Your task to perform on an android device: Open privacy settings Image 0: 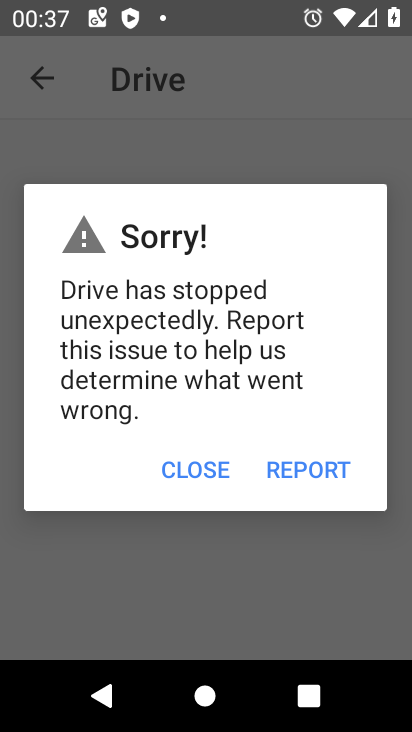
Step 0: press home button
Your task to perform on an android device: Open privacy settings Image 1: 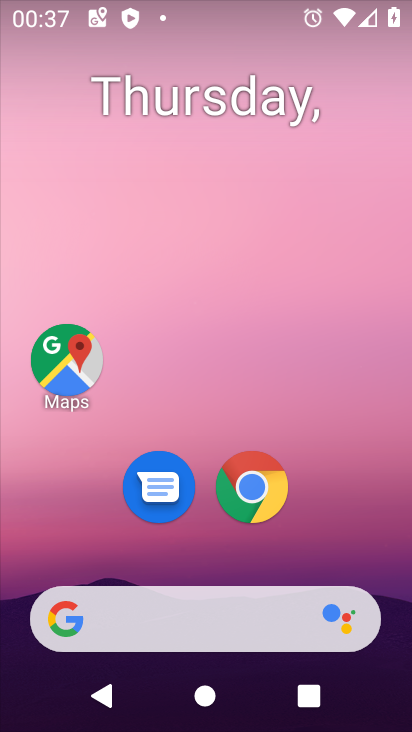
Step 1: drag from (390, 586) to (382, 1)
Your task to perform on an android device: Open privacy settings Image 2: 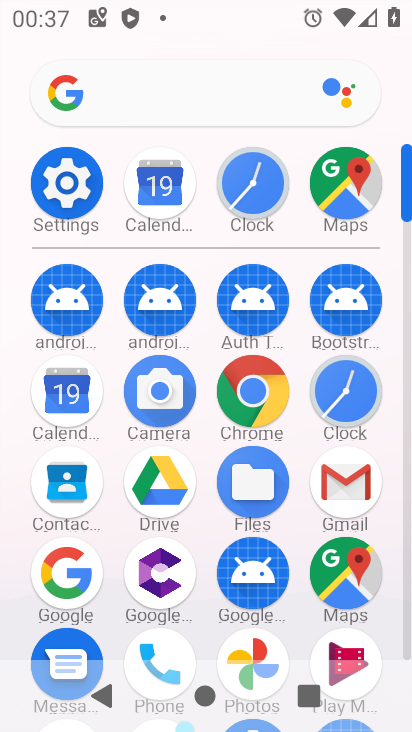
Step 2: click (72, 178)
Your task to perform on an android device: Open privacy settings Image 3: 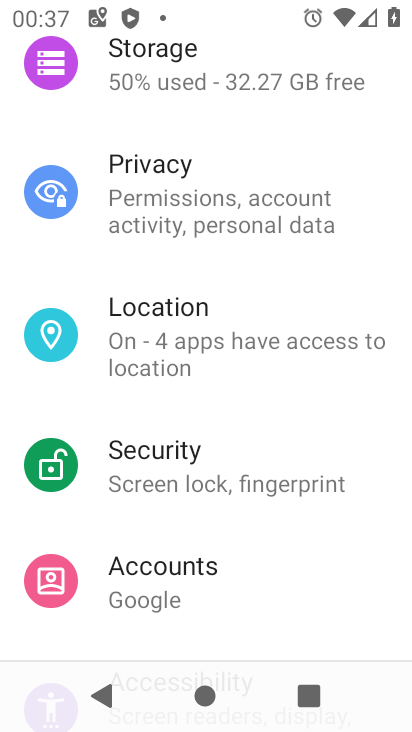
Step 3: click (163, 192)
Your task to perform on an android device: Open privacy settings Image 4: 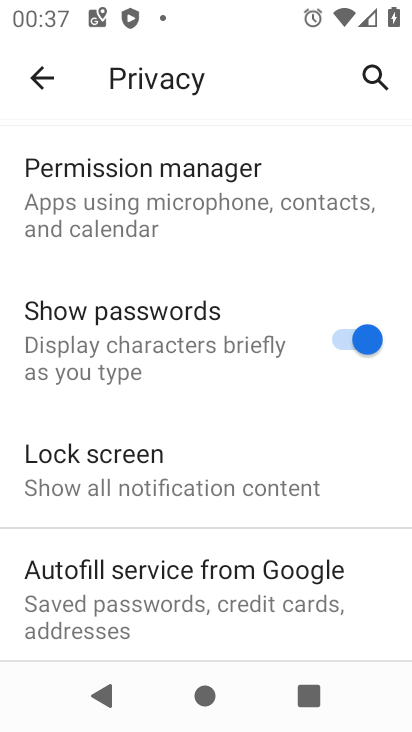
Step 4: task complete